Your task to perform on an android device: uninstall "Google Home" Image 0: 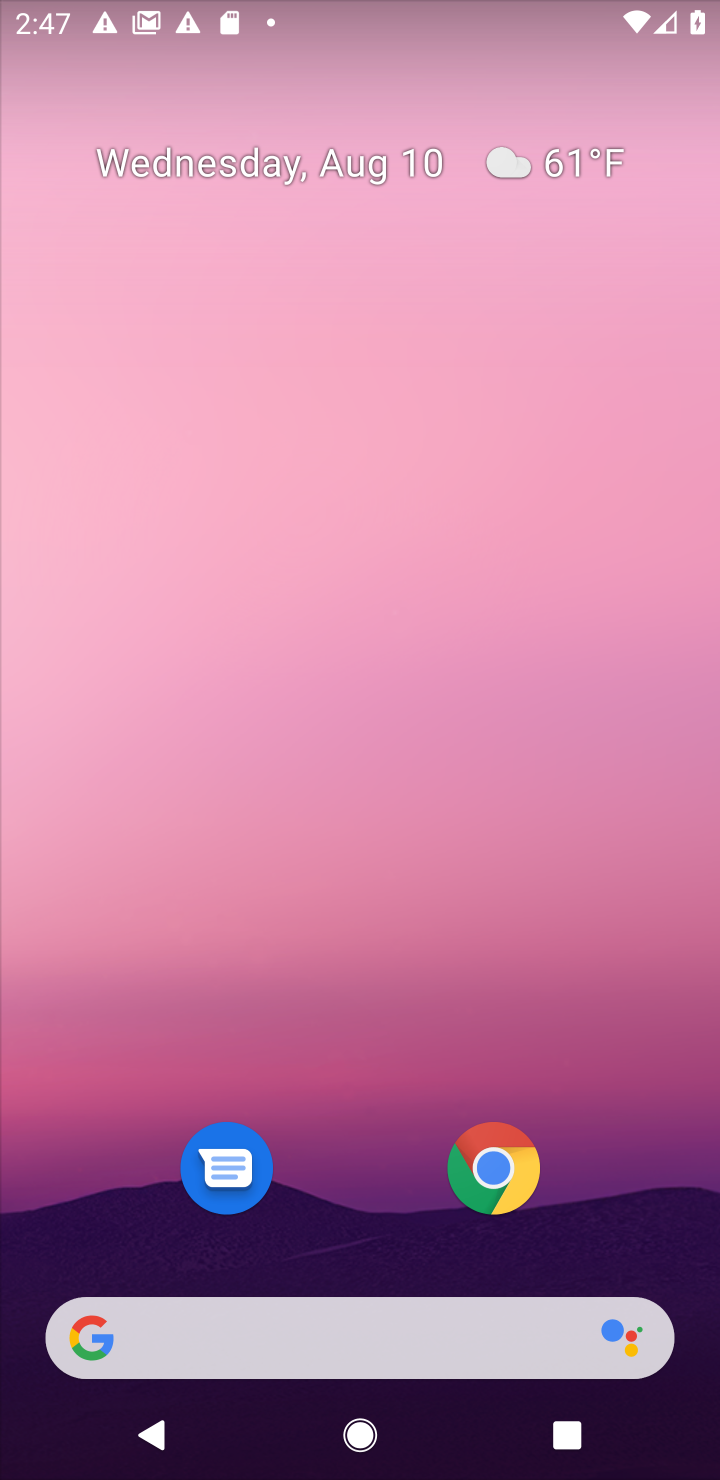
Step 0: drag from (318, 1322) to (186, 317)
Your task to perform on an android device: uninstall "Google Home" Image 1: 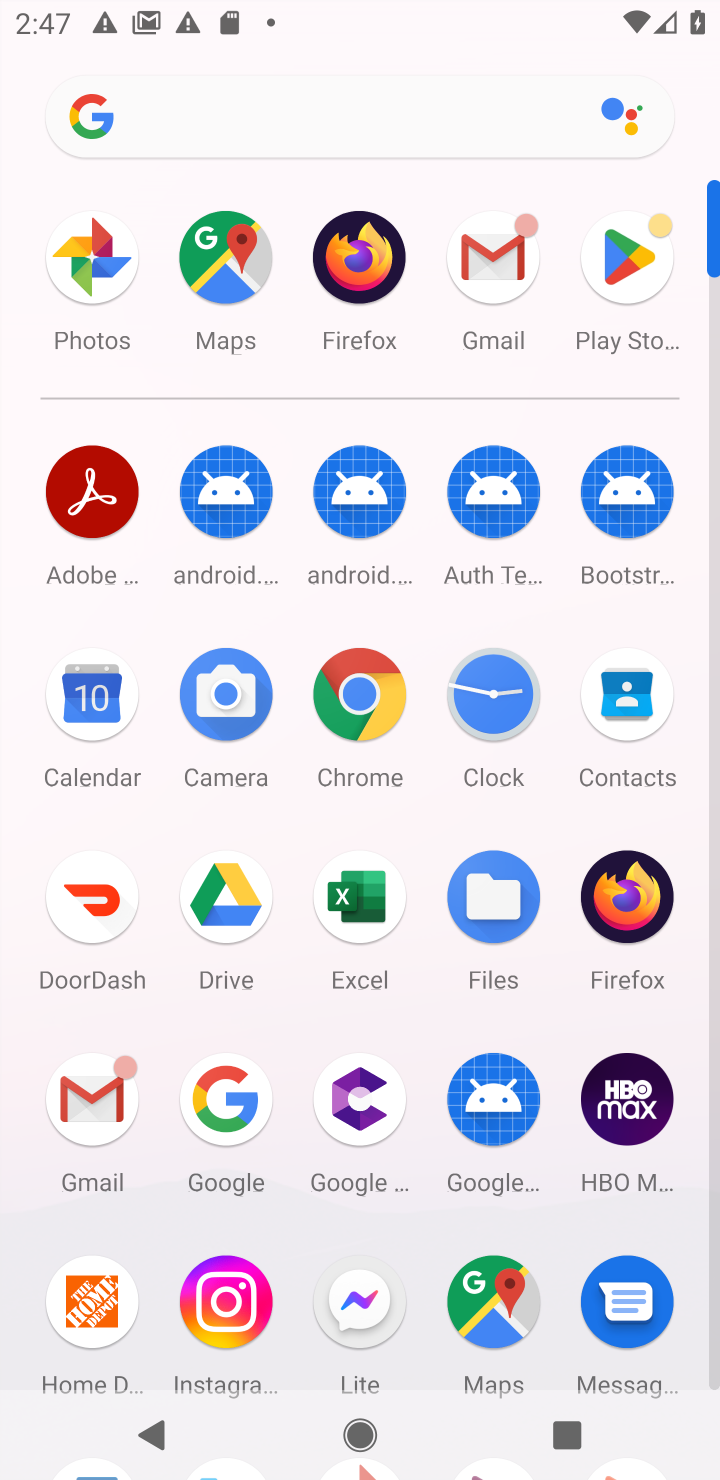
Step 1: click (632, 258)
Your task to perform on an android device: uninstall "Google Home" Image 2: 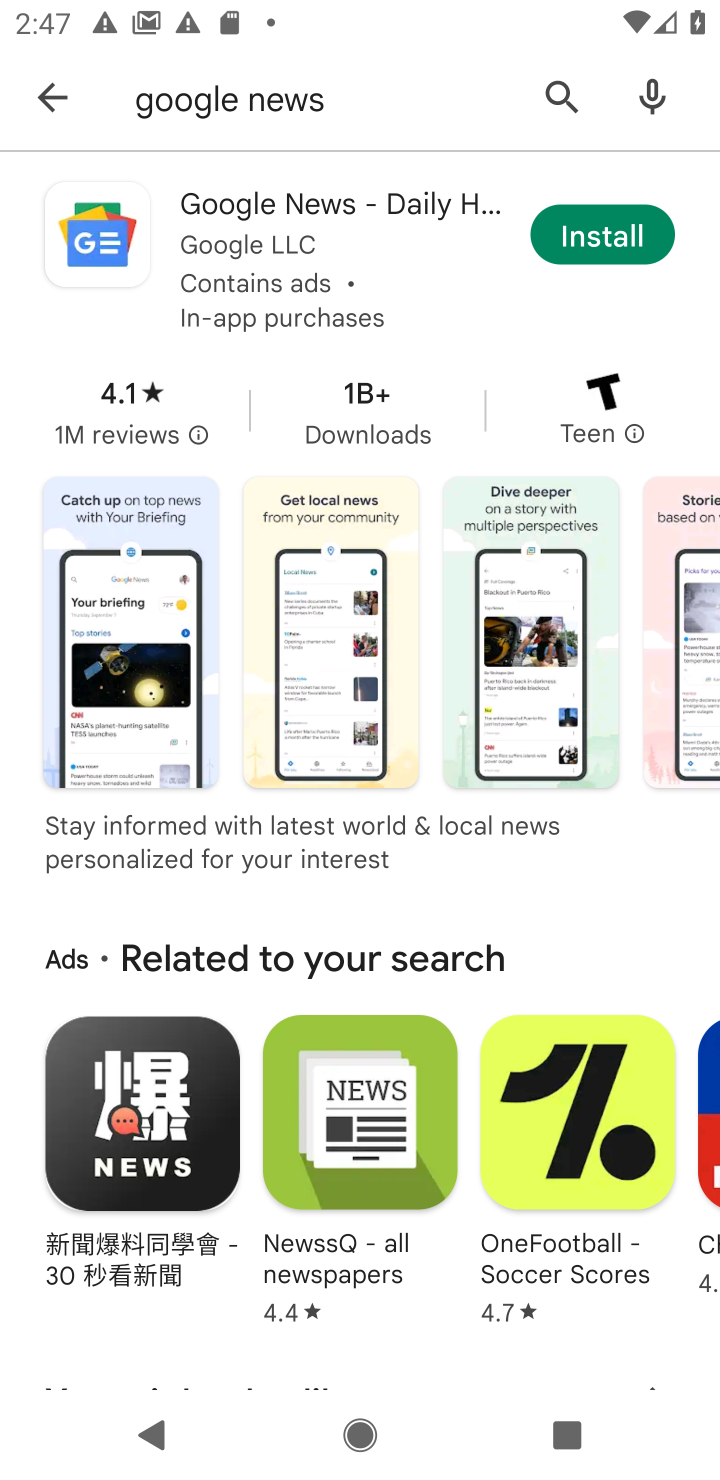
Step 2: click (544, 95)
Your task to perform on an android device: uninstall "Google Home" Image 3: 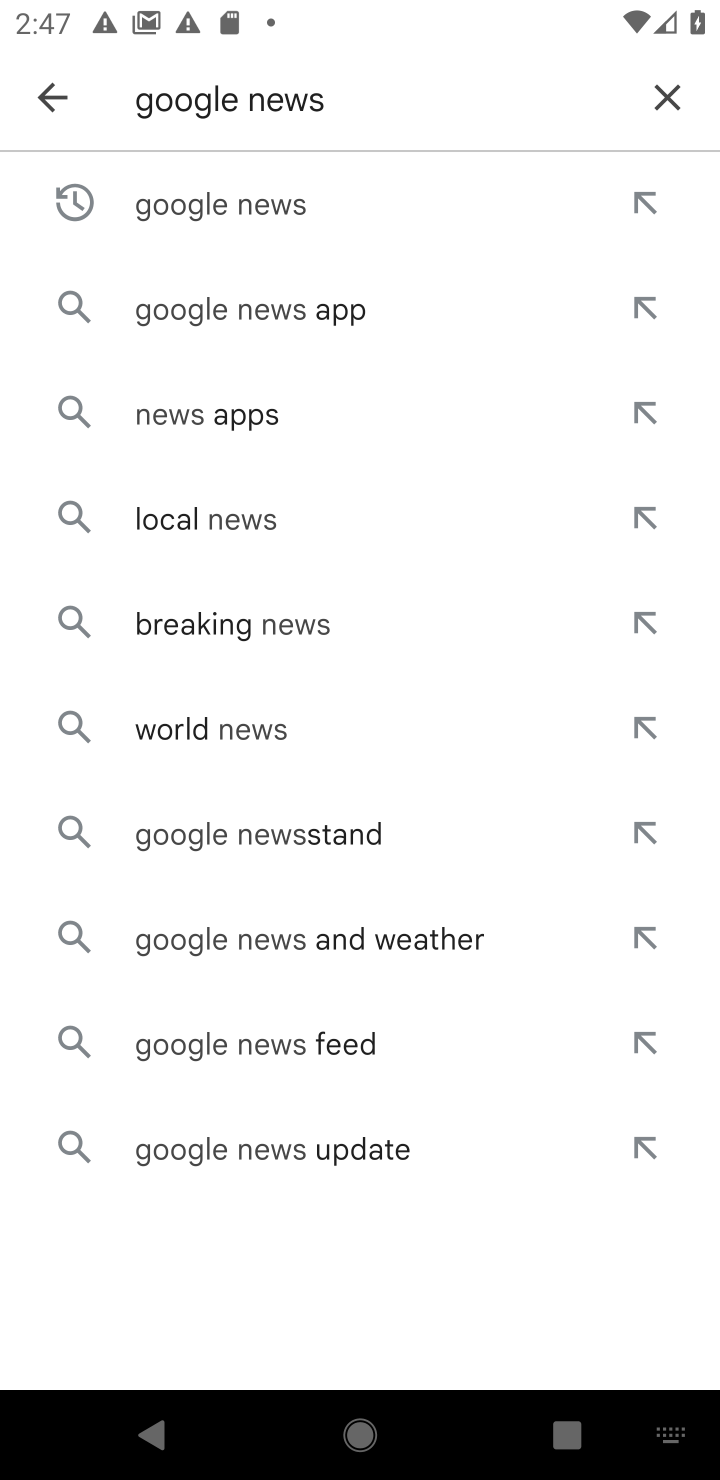
Step 3: press back button
Your task to perform on an android device: uninstall "Google Home" Image 4: 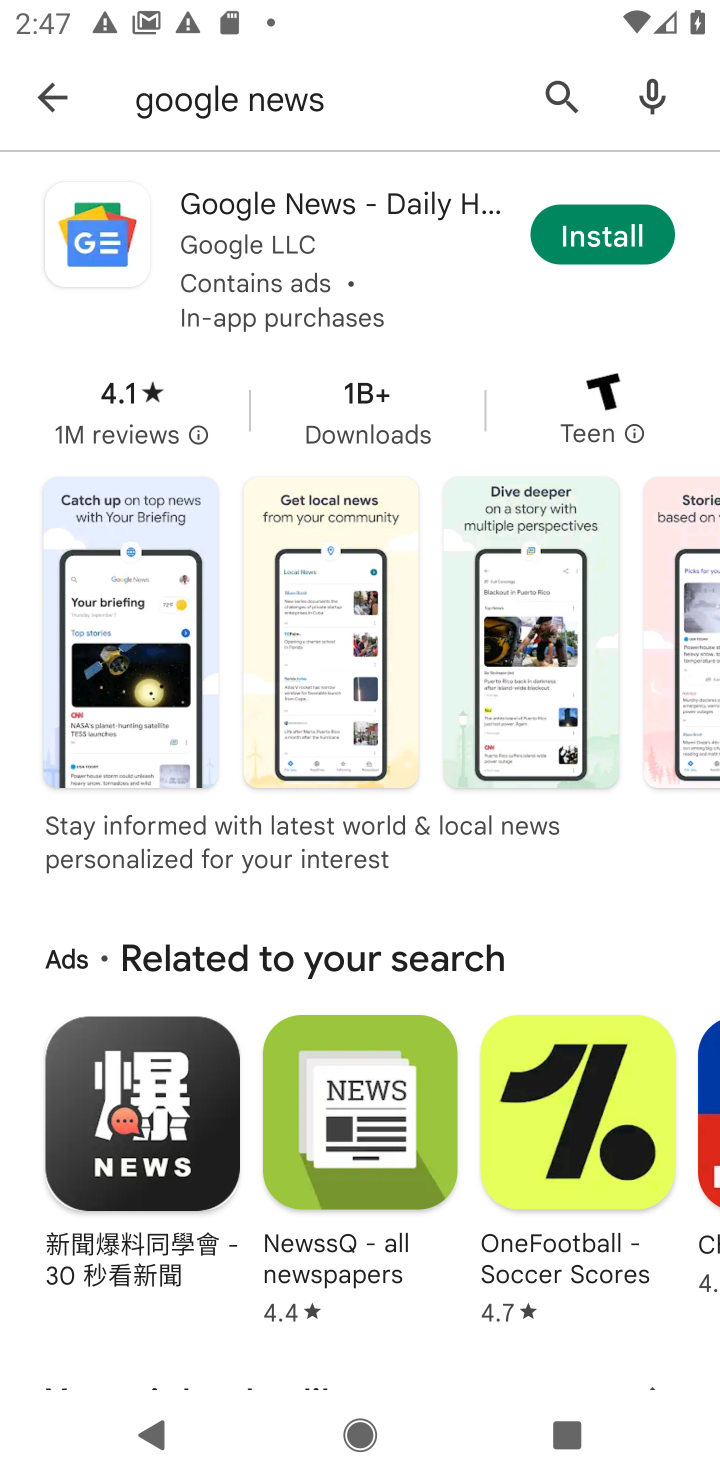
Step 4: press back button
Your task to perform on an android device: uninstall "Google Home" Image 5: 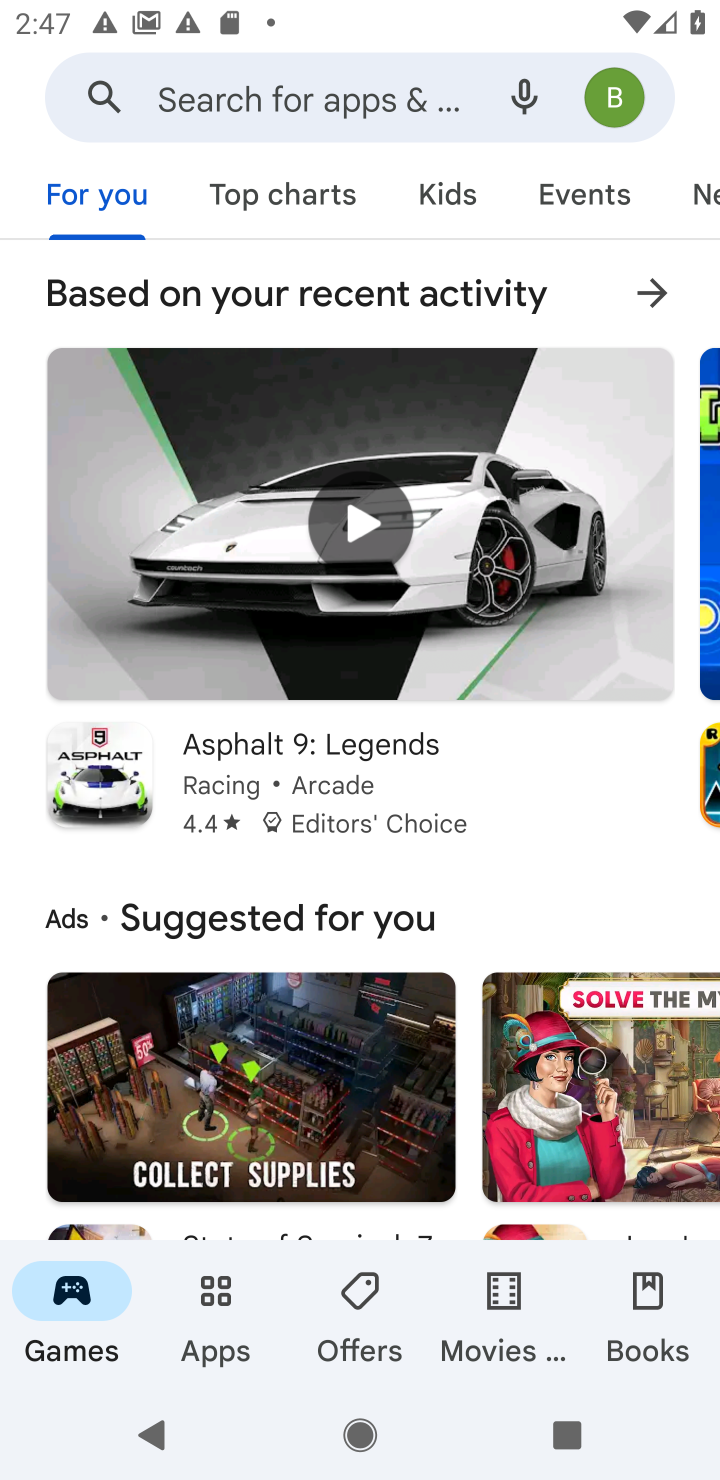
Step 5: click (379, 98)
Your task to perform on an android device: uninstall "Google Home" Image 6: 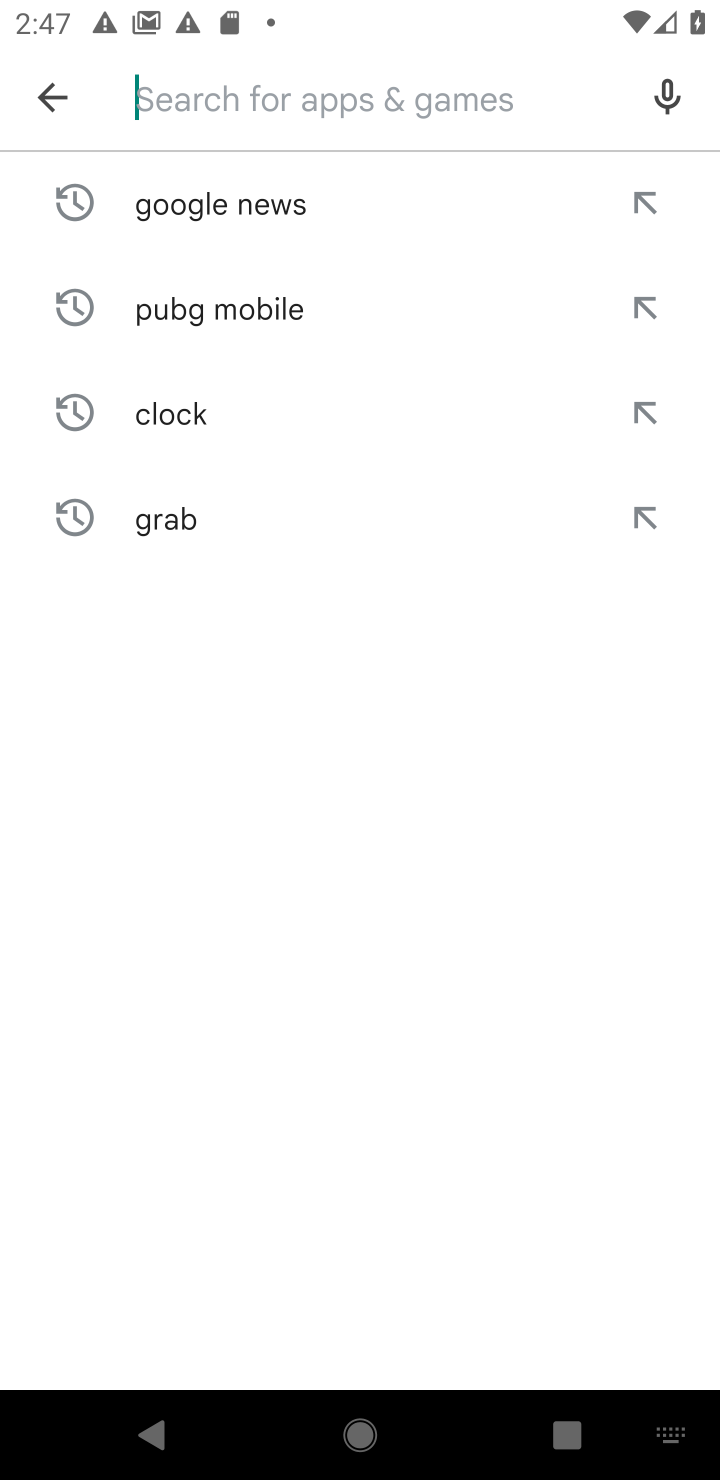
Step 6: type "Google Home"
Your task to perform on an android device: uninstall "Google Home" Image 7: 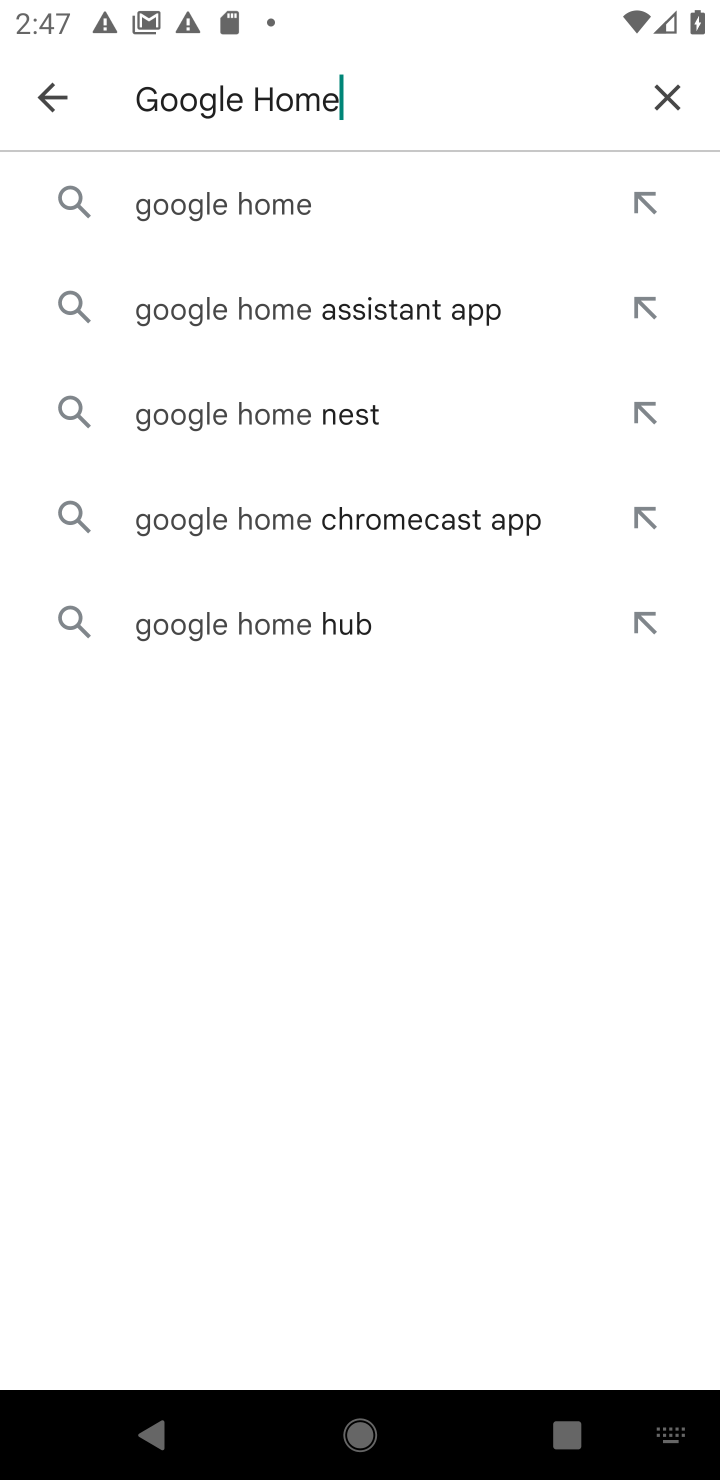
Step 7: click (170, 203)
Your task to perform on an android device: uninstall "Google Home" Image 8: 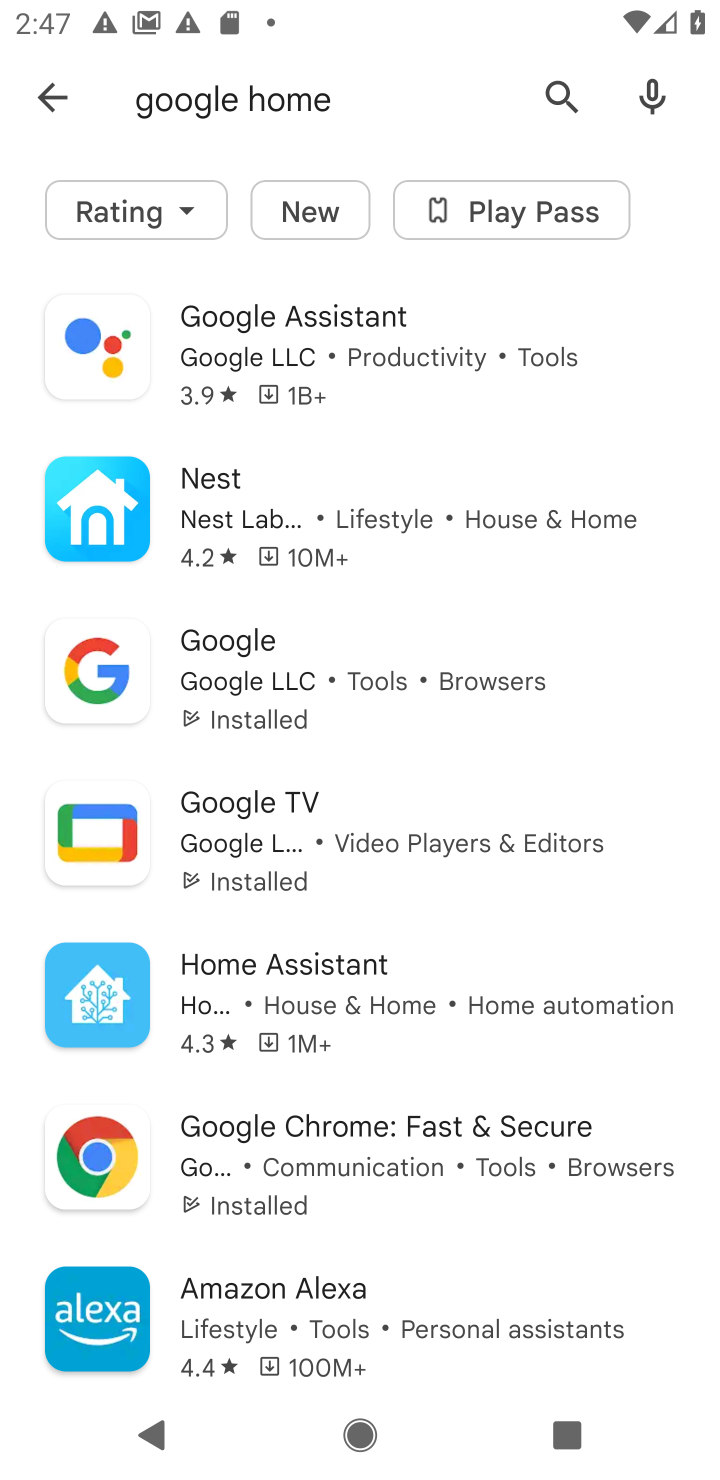
Step 8: drag from (306, 879) to (363, 694)
Your task to perform on an android device: uninstall "Google Home" Image 9: 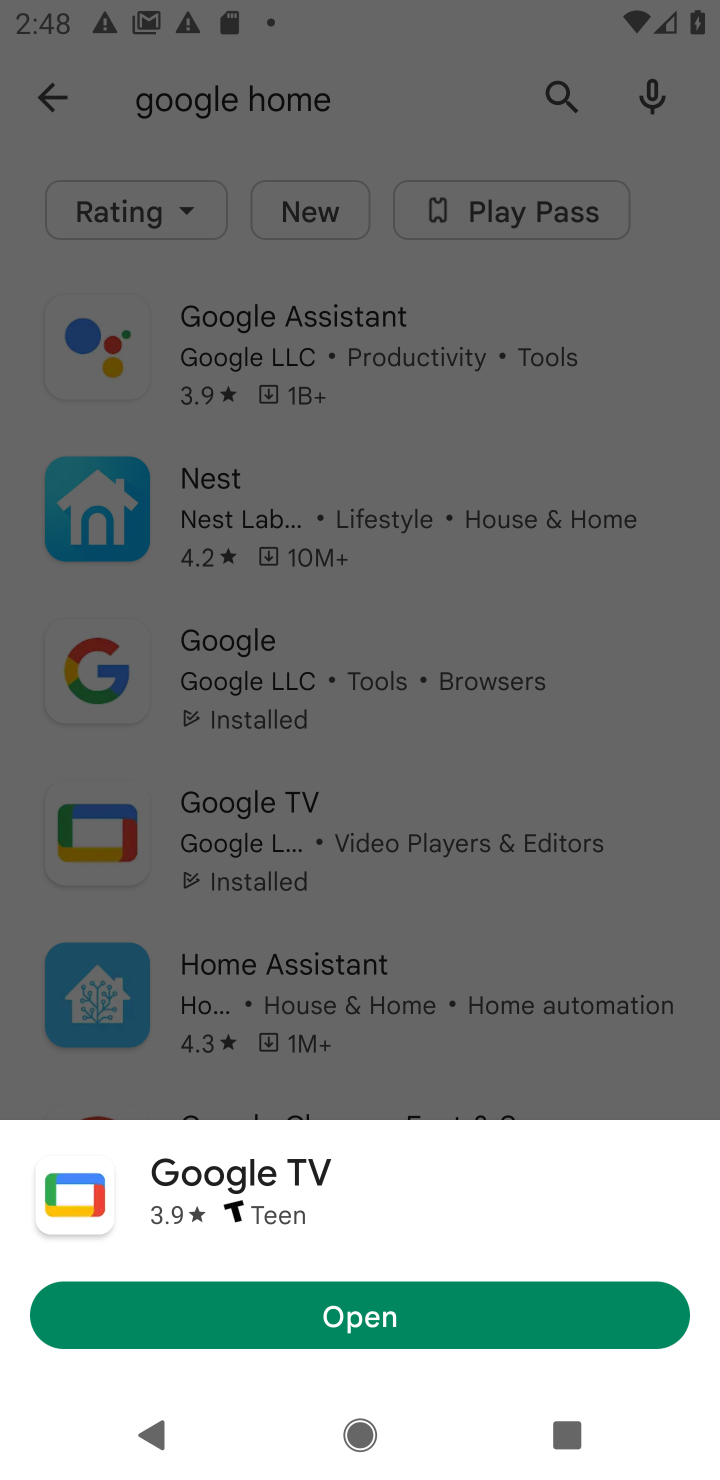
Step 9: click (512, 639)
Your task to perform on an android device: uninstall "Google Home" Image 10: 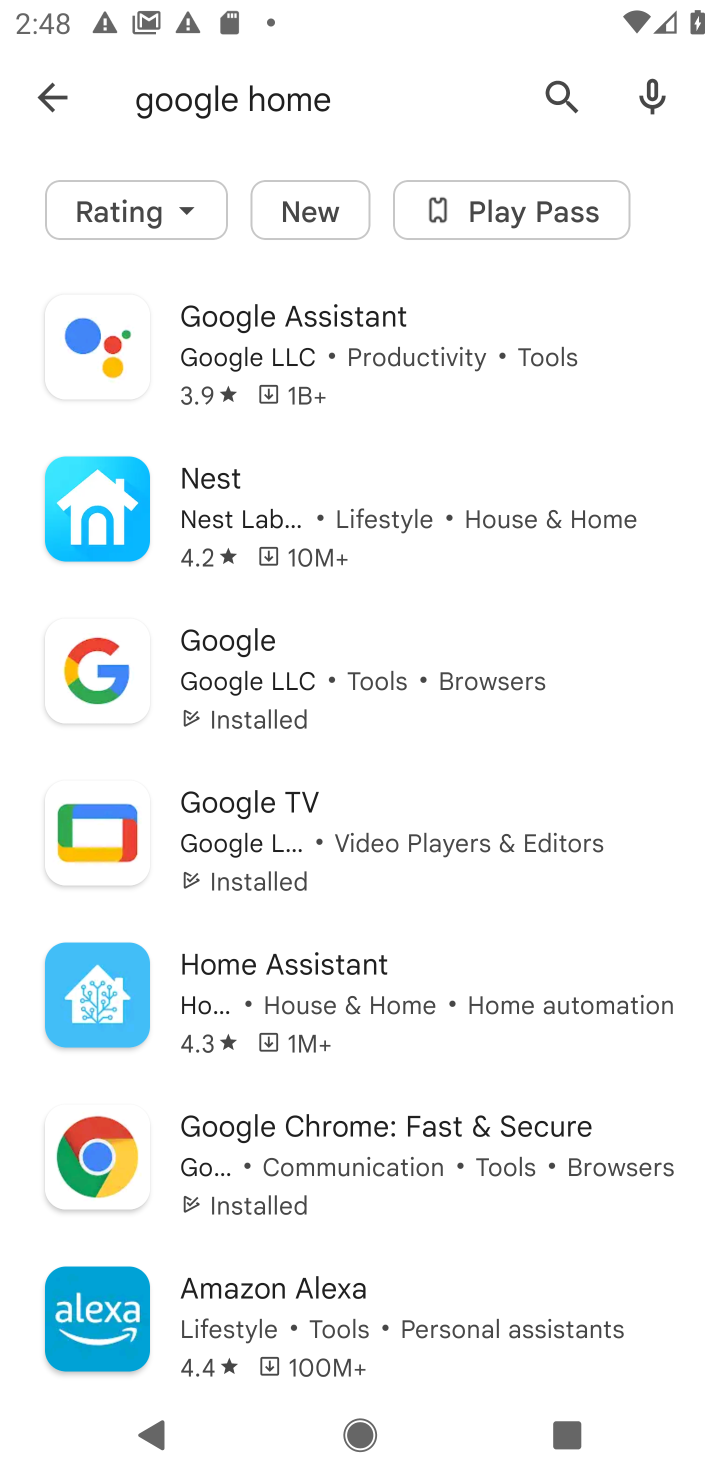
Step 10: task complete